Your task to perform on an android device: turn off picture-in-picture Image 0: 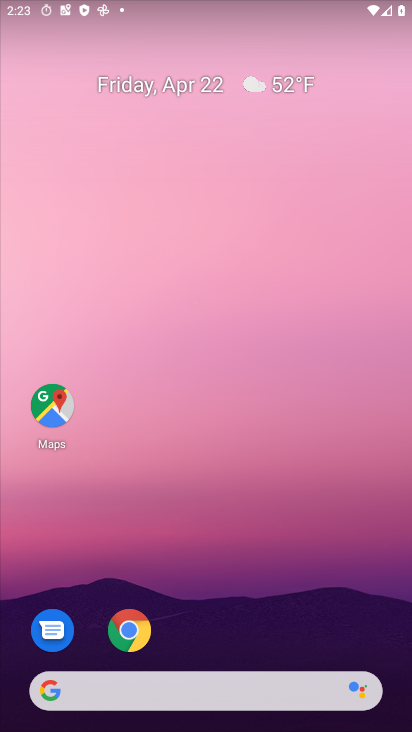
Step 0: click (126, 629)
Your task to perform on an android device: turn off picture-in-picture Image 1: 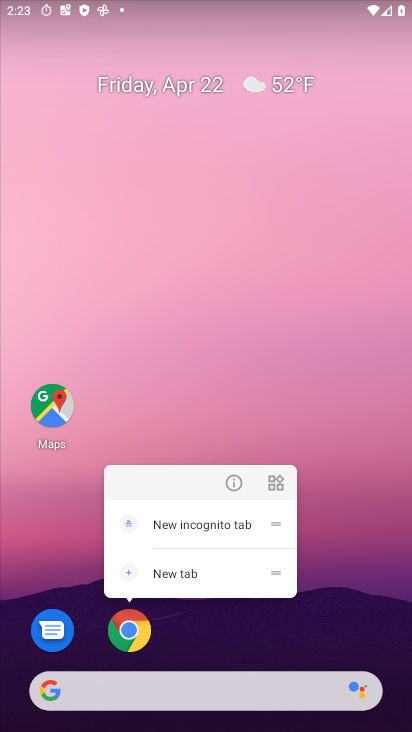
Step 1: click (231, 485)
Your task to perform on an android device: turn off picture-in-picture Image 2: 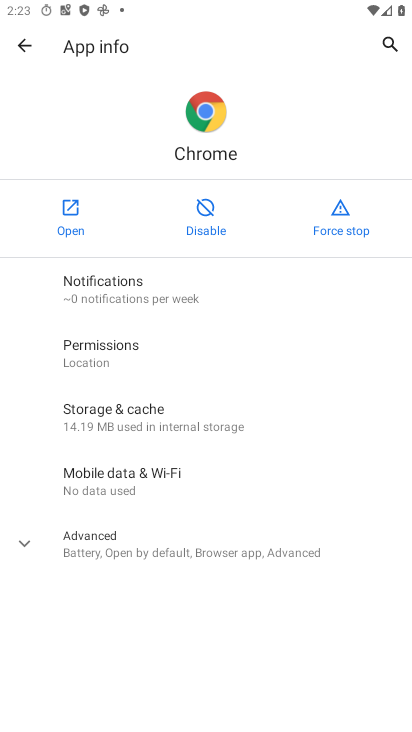
Step 2: drag from (274, 563) to (277, 233)
Your task to perform on an android device: turn off picture-in-picture Image 3: 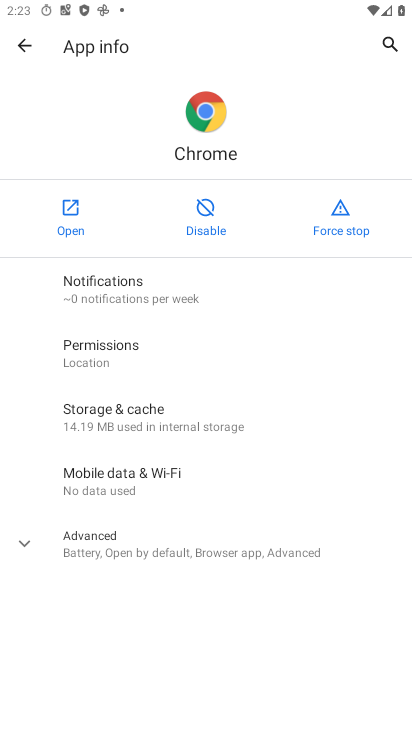
Step 3: drag from (288, 319) to (288, 231)
Your task to perform on an android device: turn off picture-in-picture Image 4: 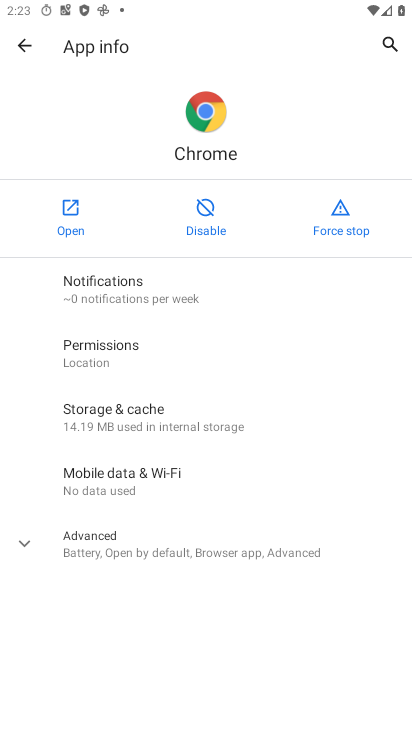
Step 4: click (28, 543)
Your task to perform on an android device: turn off picture-in-picture Image 5: 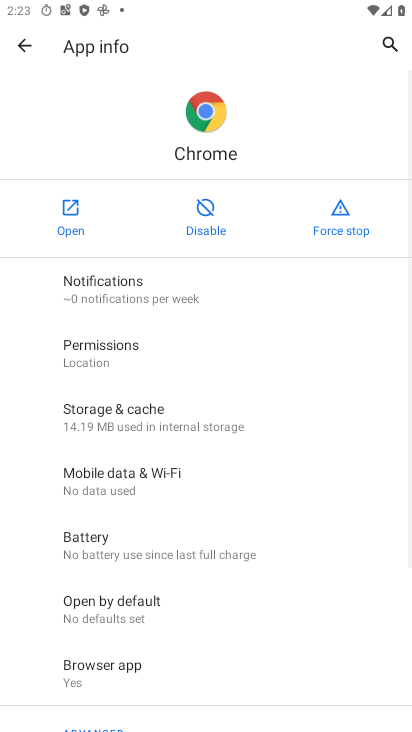
Step 5: drag from (274, 661) to (319, 374)
Your task to perform on an android device: turn off picture-in-picture Image 6: 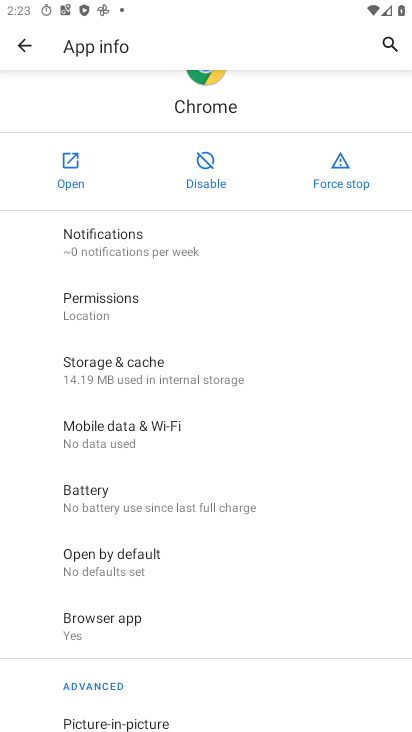
Step 6: drag from (304, 675) to (316, 374)
Your task to perform on an android device: turn off picture-in-picture Image 7: 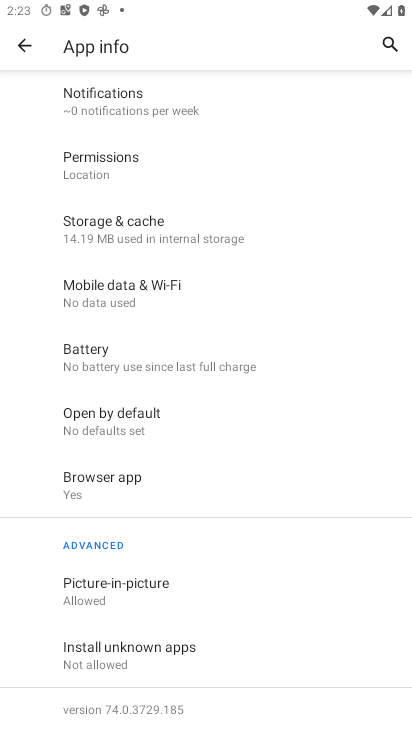
Step 7: click (92, 588)
Your task to perform on an android device: turn off picture-in-picture Image 8: 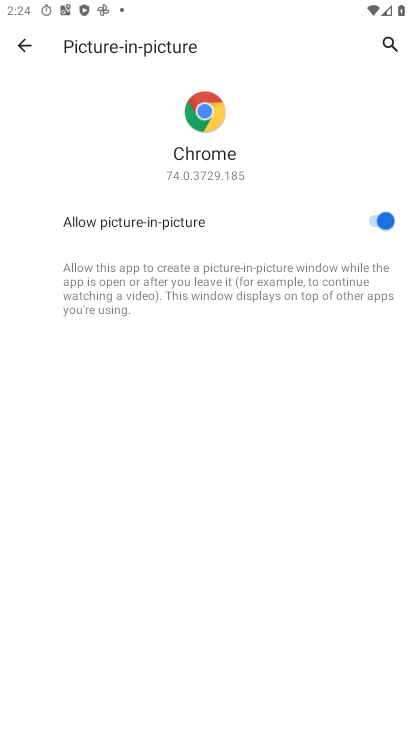
Step 8: click (374, 219)
Your task to perform on an android device: turn off picture-in-picture Image 9: 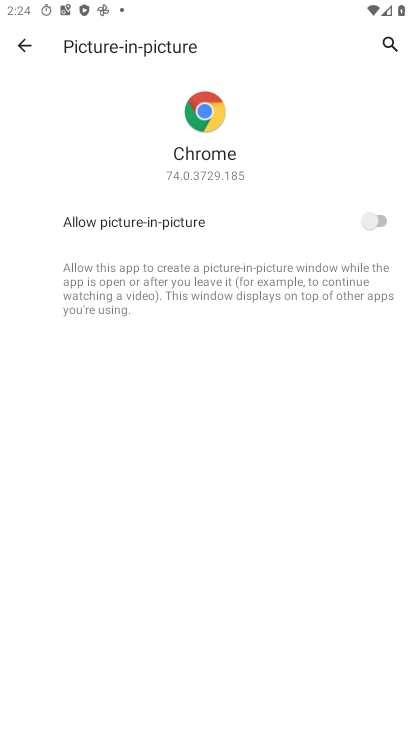
Step 9: task complete